Your task to perform on an android device: What's on my calendar today? Image 0: 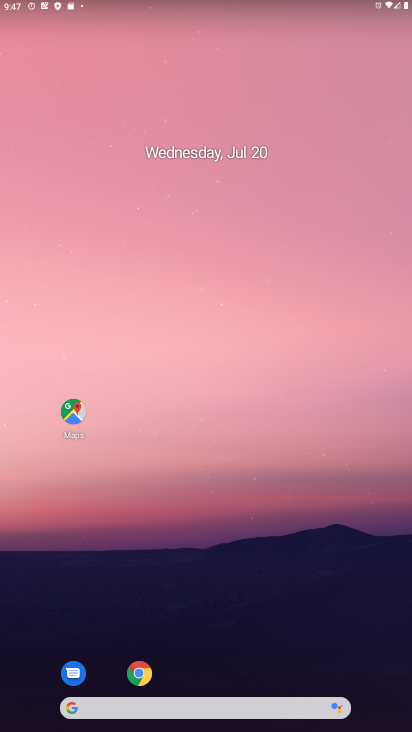
Step 0: drag from (221, 728) to (211, 261)
Your task to perform on an android device: What's on my calendar today? Image 1: 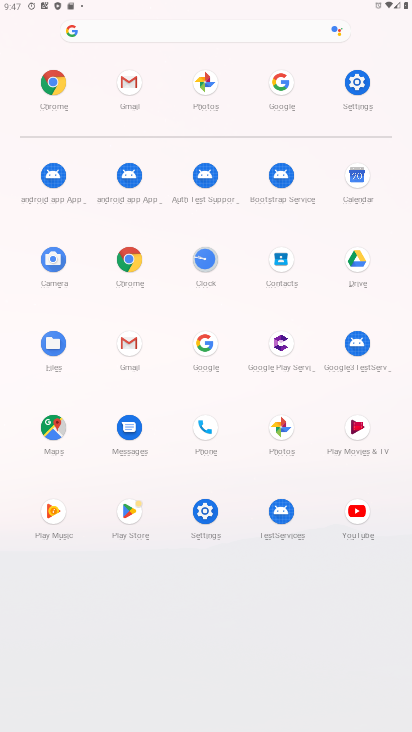
Step 1: click (356, 182)
Your task to perform on an android device: What's on my calendar today? Image 2: 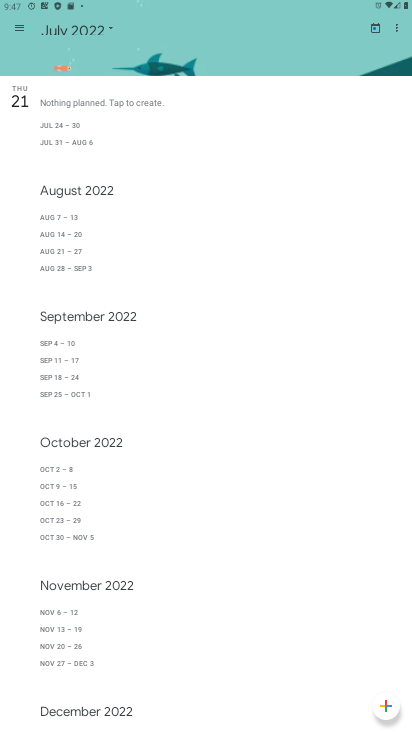
Step 2: task complete